Your task to perform on an android device: clear all cookies in the chrome app Image 0: 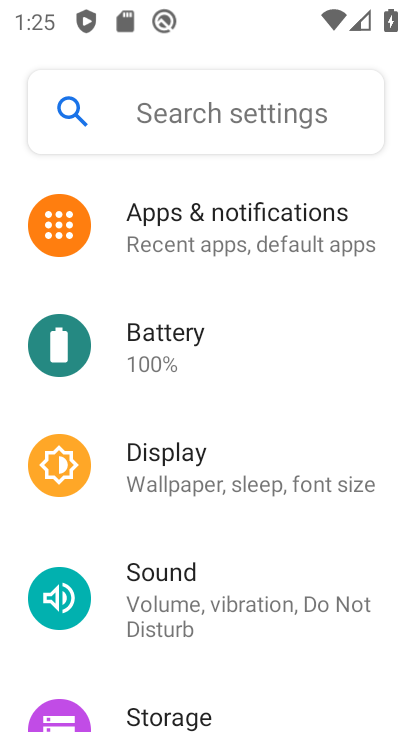
Step 0: press home button
Your task to perform on an android device: clear all cookies in the chrome app Image 1: 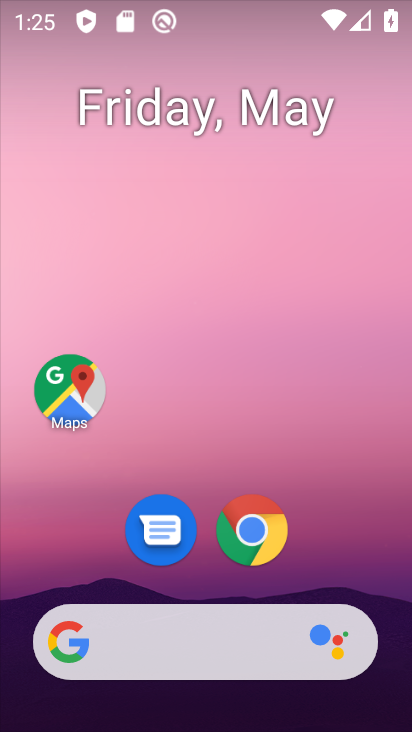
Step 1: click (264, 517)
Your task to perform on an android device: clear all cookies in the chrome app Image 2: 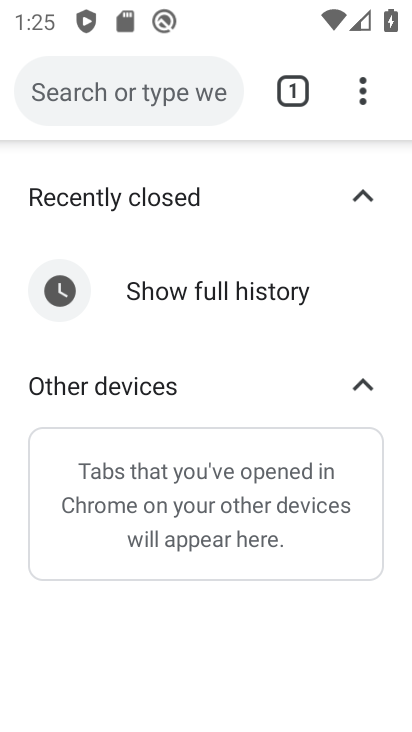
Step 2: click (359, 96)
Your task to perform on an android device: clear all cookies in the chrome app Image 3: 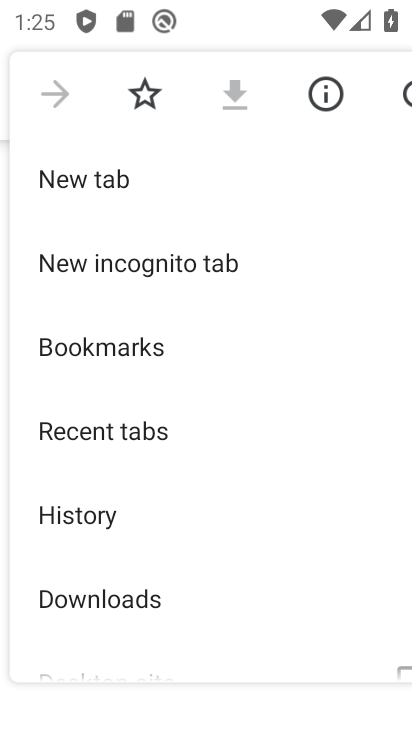
Step 3: click (82, 514)
Your task to perform on an android device: clear all cookies in the chrome app Image 4: 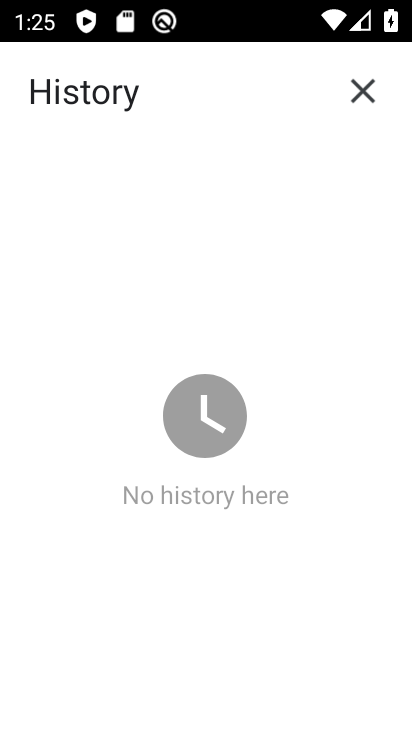
Step 4: task complete